Your task to perform on an android device: Go to CNN.com Image 0: 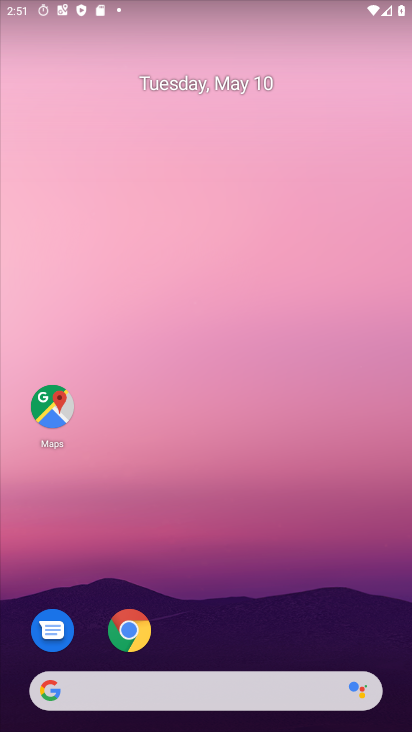
Step 0: click (113, 623)
Your task to perform on an android device: Go to CNN.com Image 1: 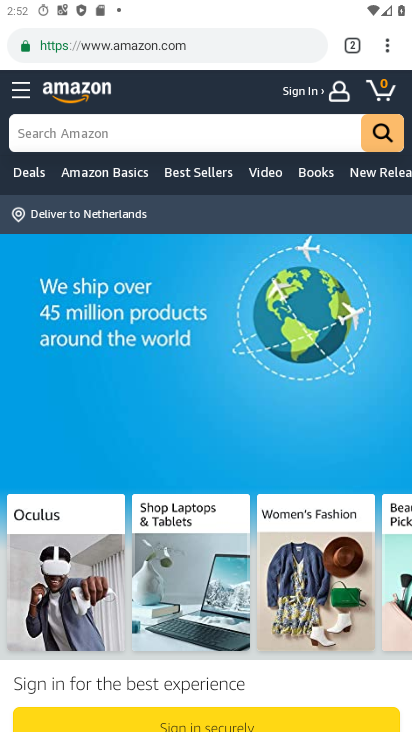
Step 1: click (206, 49)
Your task to perform on an android device: Go to CNN.com Image 2: 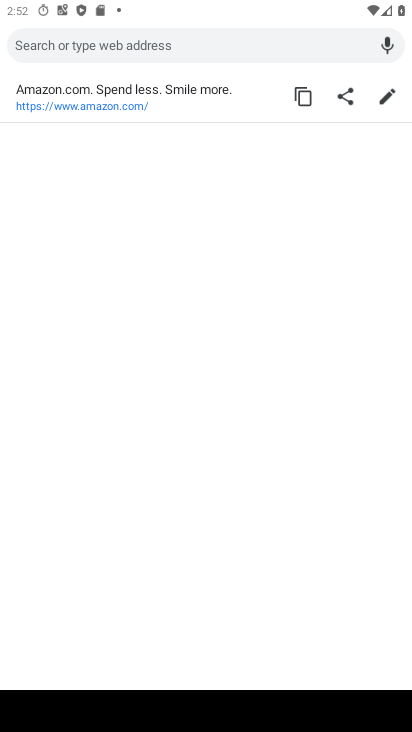
Step 2: click (206, 49)
Your task to perform on an android device: Go to CNN.com Image 3: 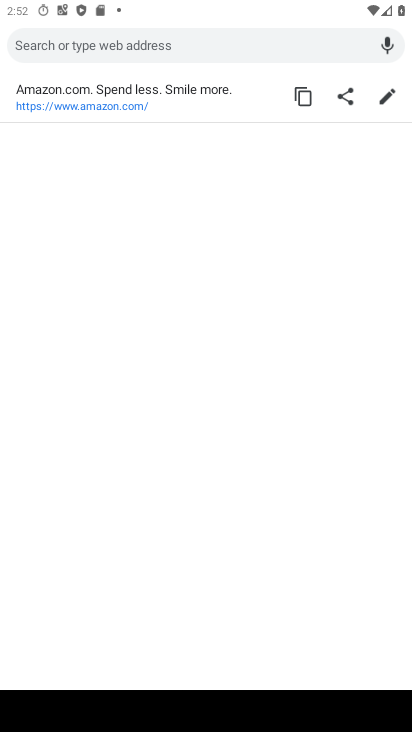
Step 3: type "cnn.com"
Your task to perform on an android device: Go to CNN.com Image 4: 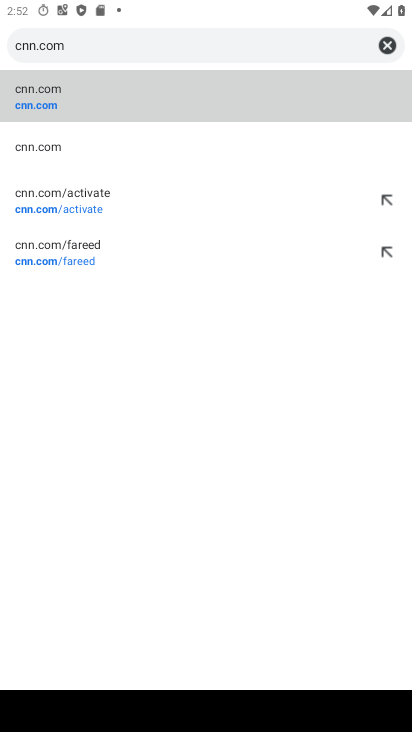
Step 4: click (99, 93)
Your task to perform on an android device: Go to CNN.com Image 5: 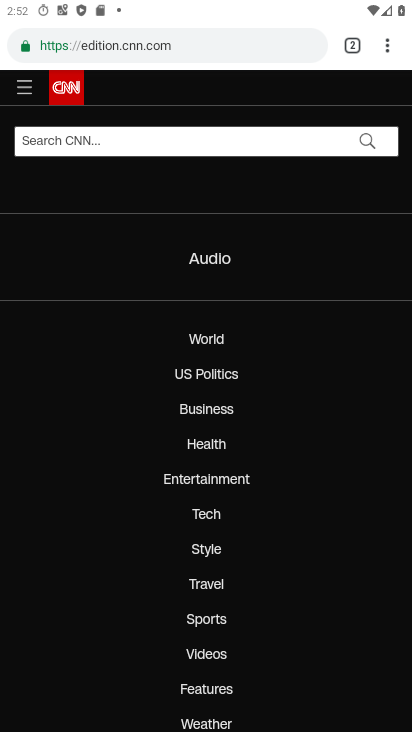
Step 5: task complete